Your task to perform on an android device: install app "Adobe Acrobat Reader: Edit PDF" Image 0: 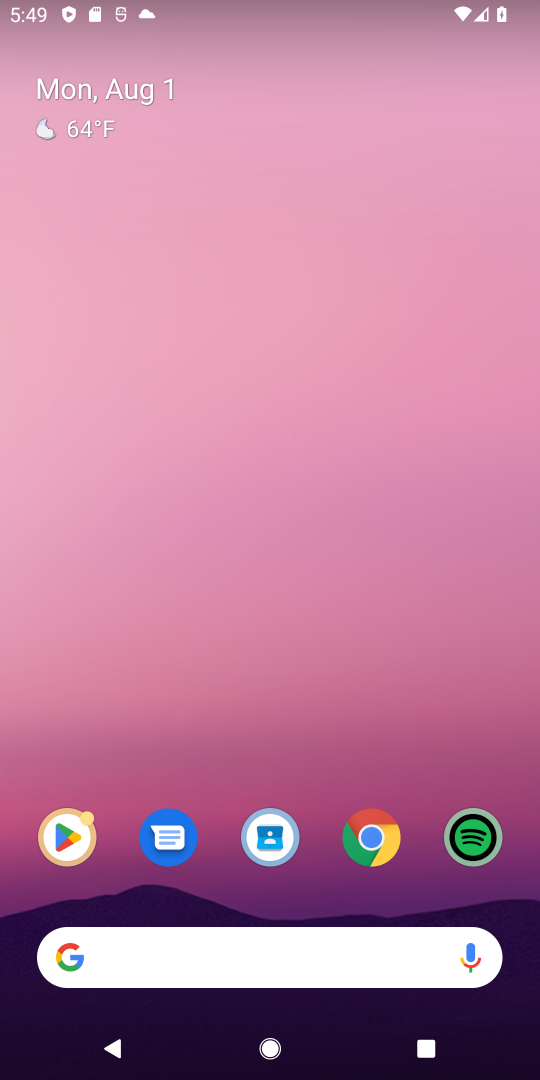
Step 0: click (55, 823)
Your task to perform on an android device: install app "Adobe Acrobat Reader: Edit PDF" Image 1: 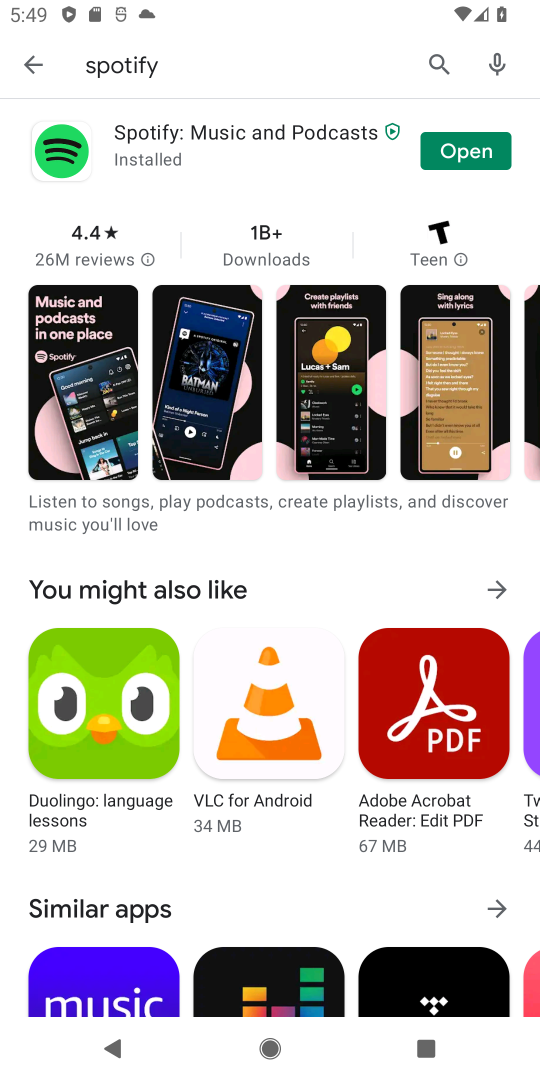
Step 1: click (432, 58)
Your task to perform on an android device: install app "Adobe Acrobat Reader: Edit PDF" Image 2: 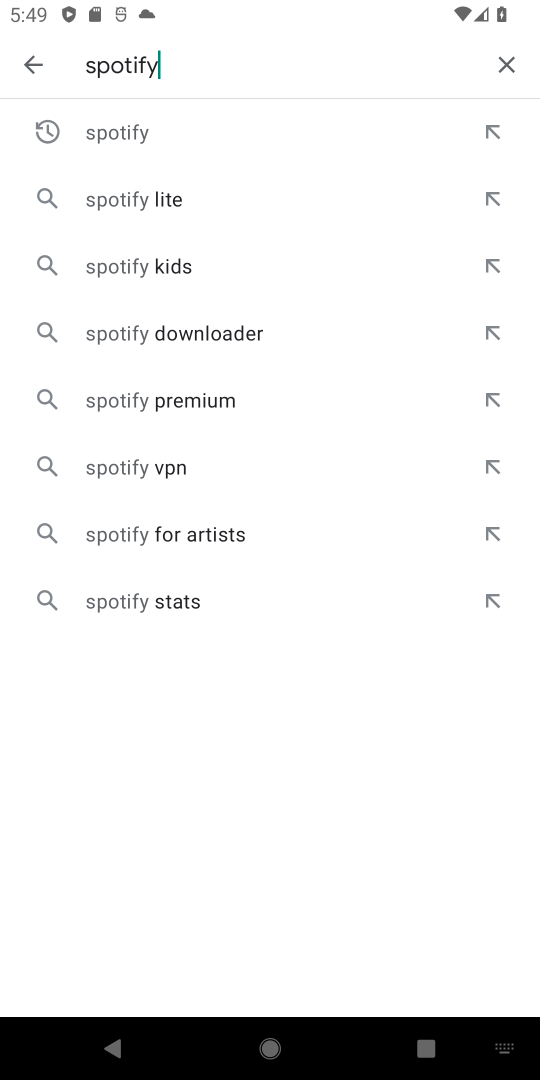
Step 2: click (509, 71)
Your task to perform on an android device: install app "Adobe Acrobat Reader: Edit PDF" Image 3: 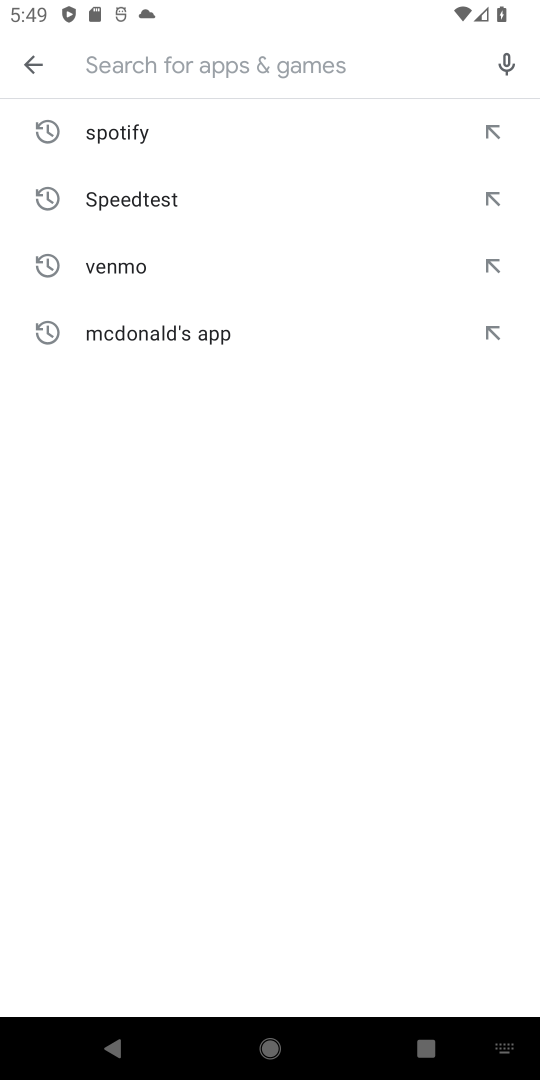
Step 3: type "Adobe Acrobat Reader: Edit PDf"
Your task to perform on an android device: install app "Adobe Acrobat Reader: Edit PDF" Image 4: 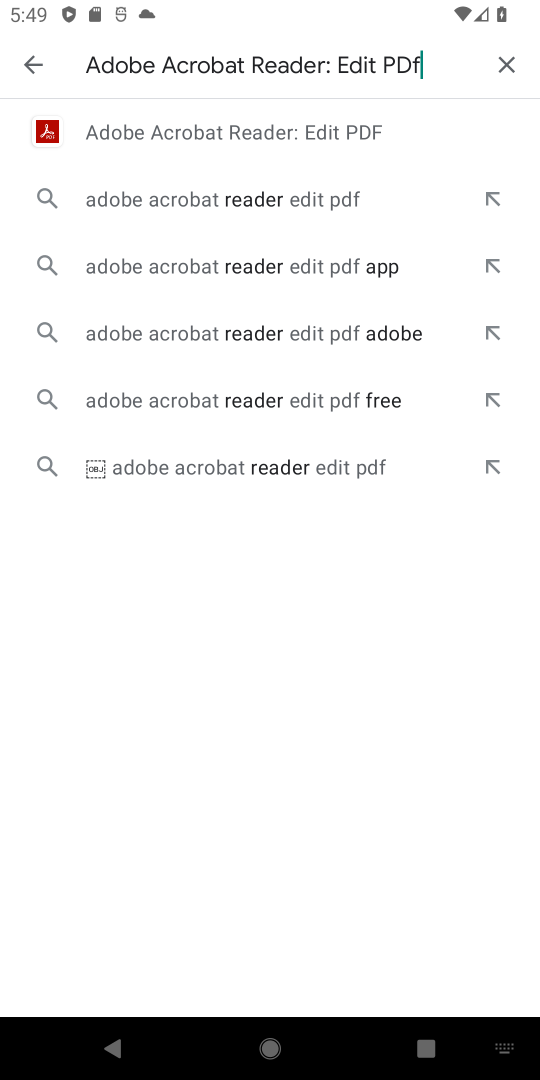
Step 4: click (392, 134)
Your task to perform on an android device: install app "Adobe Acrobat Reader: Edit PDF" Image 5: 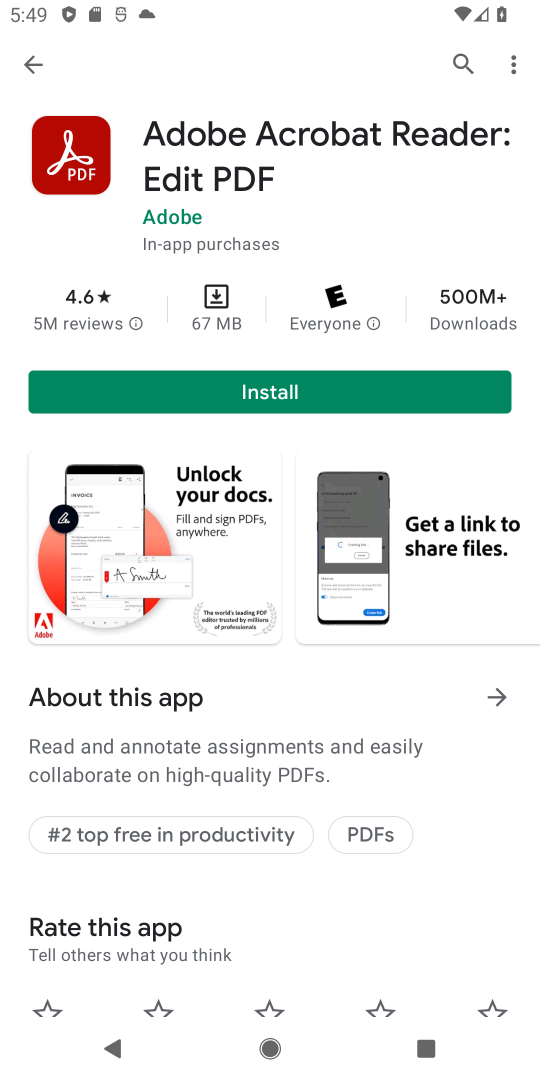
Step 5: click (455, 386)
Your task to perform on an android device: install app "Adobe Acrobat Reader: Edit PDF" Image 6: 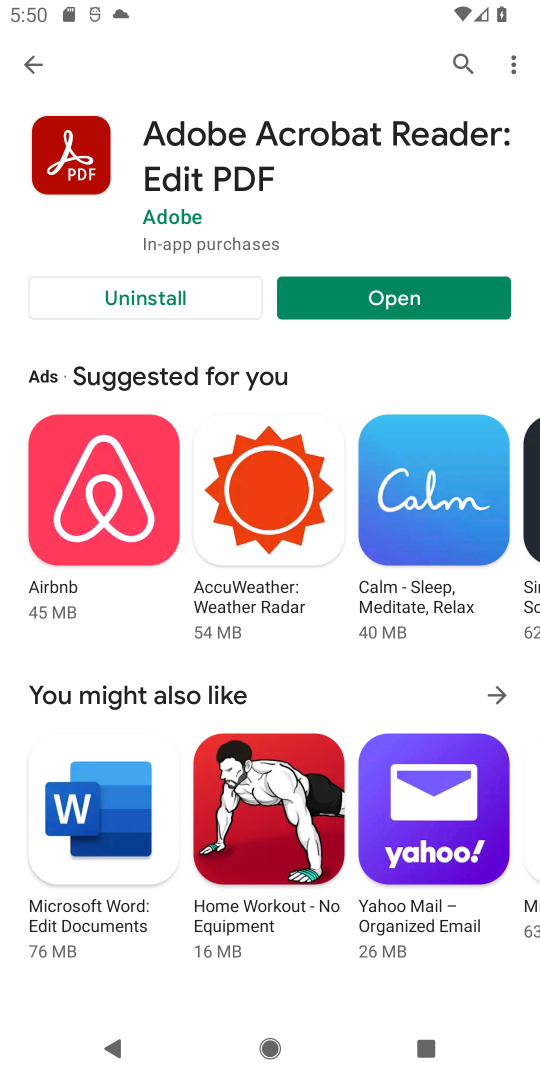
Step 6: task complete